Your task to perform on an android device: toggle airplane mode Image 0: 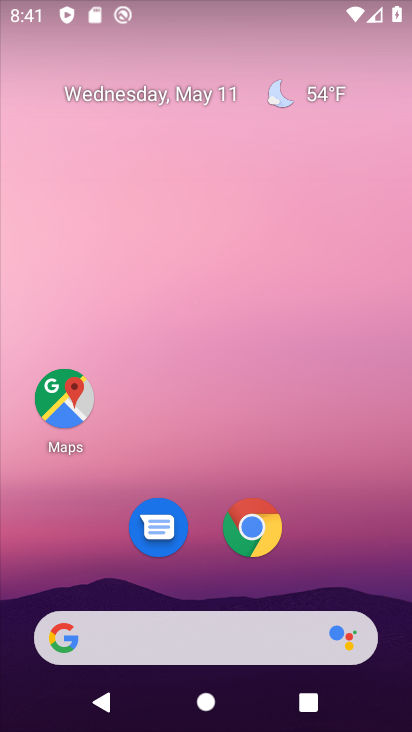
Step 0: drag from (209, 351) to (214, 107)
Your task to perform on an android device: toggle airplane mode Image 1: 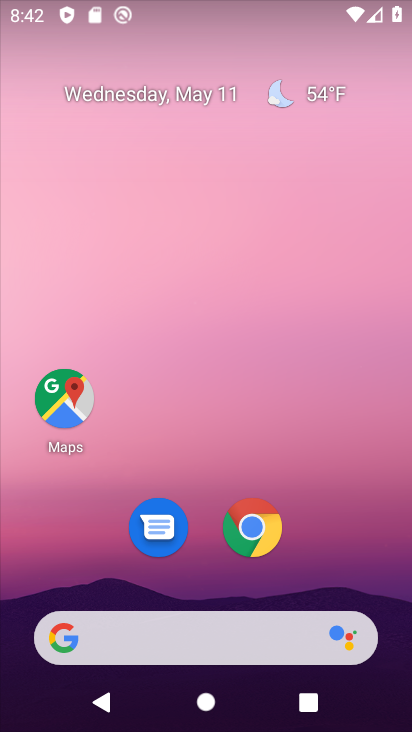
Step 1: drag from (334, 574) to (357, 119)
Your task to perform on an android device: toggle airplane mode Image 2: 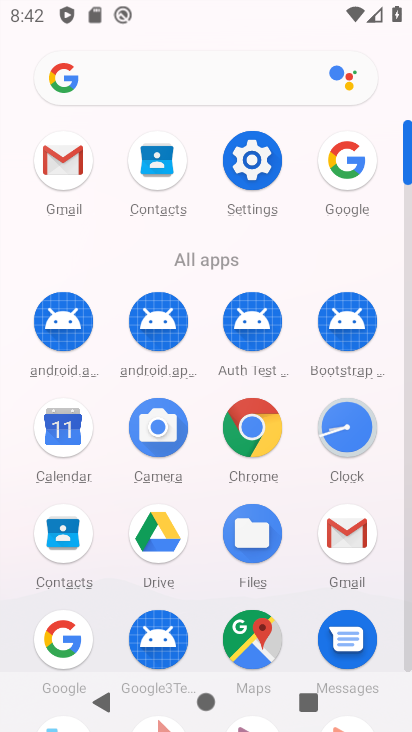
Step 2: click (242, 168)
Your task to perform on an android device: toggle airplane mode Image 3: 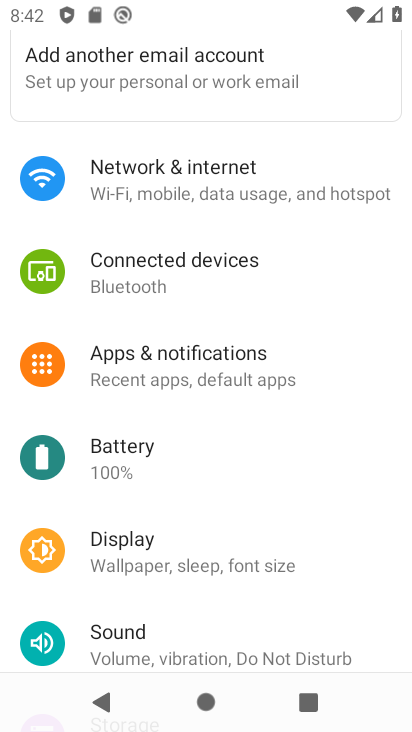
Step 3: click (175, 186)
Your task to perform on an android device: toggle airplane mode Image 4: 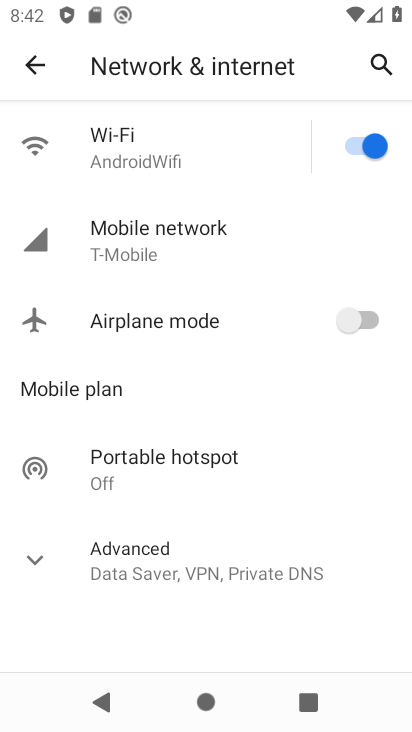
Step 4: click (347, 323)
Your task to perform on an android device: toggle airplane mode Image 5: 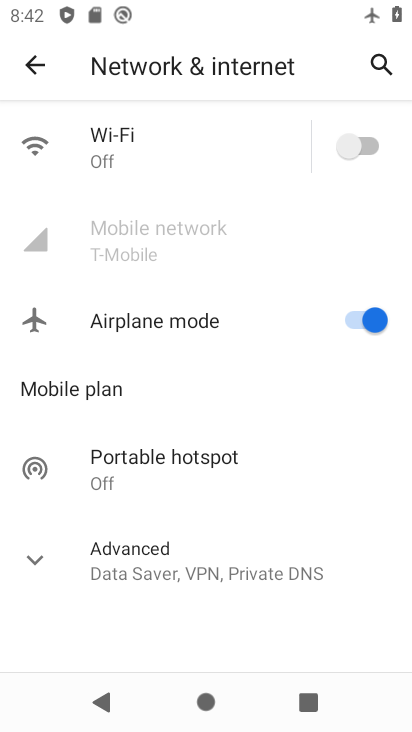
Step 5: task complete